Your task to perform on an android device: change timer sound Image 0: 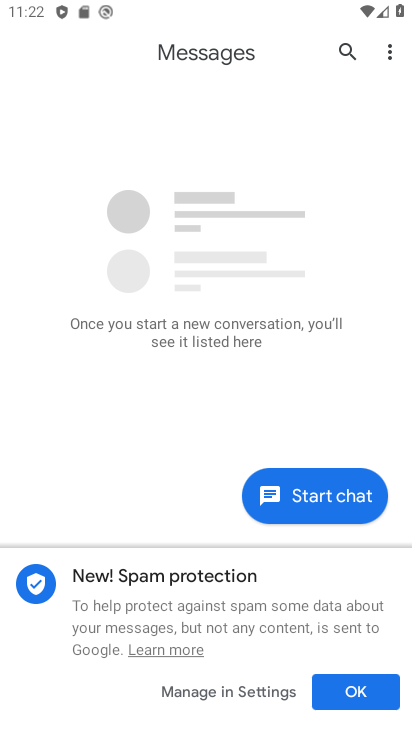
Step 0: press home button
Your task to perform on an android device: change timer sound Image 1: 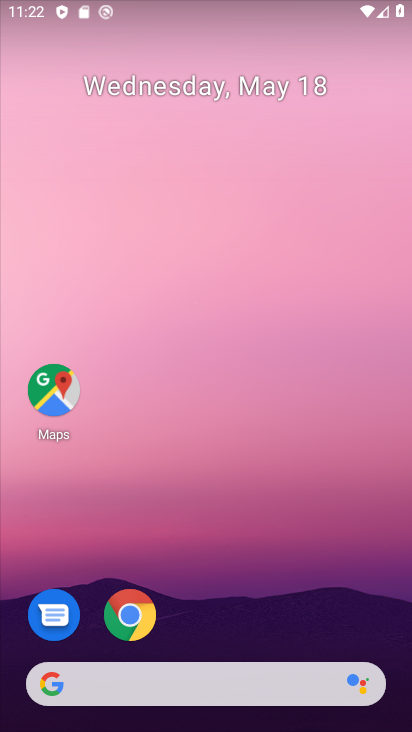
Step 1: drag from (41, 621) to (318, 145)
Your task to perform on an android device: change timer sound Image 2: 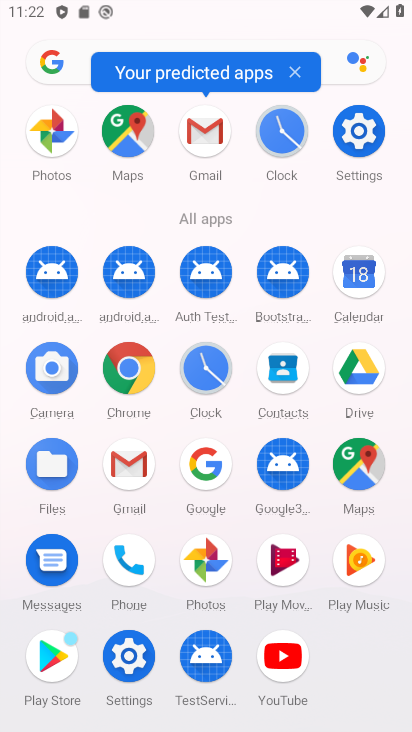
Step 2: click (357, 137)
Your task to perform on an android device: change timer sound Image 3: 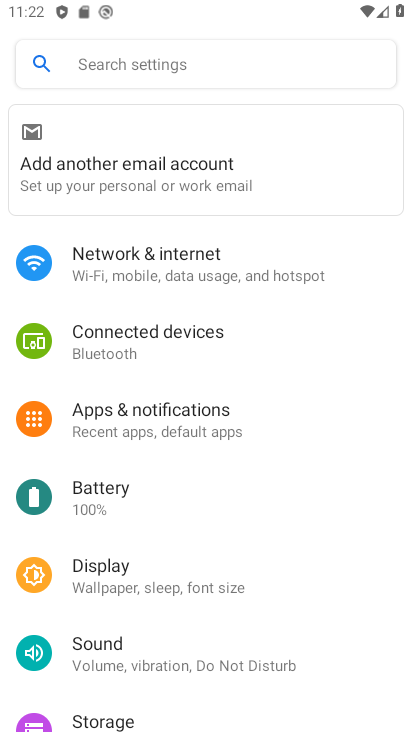
Step 3: drag from (56, 554) to (270, 234)
Your task to perform on an android device: change timer sound Image 4: 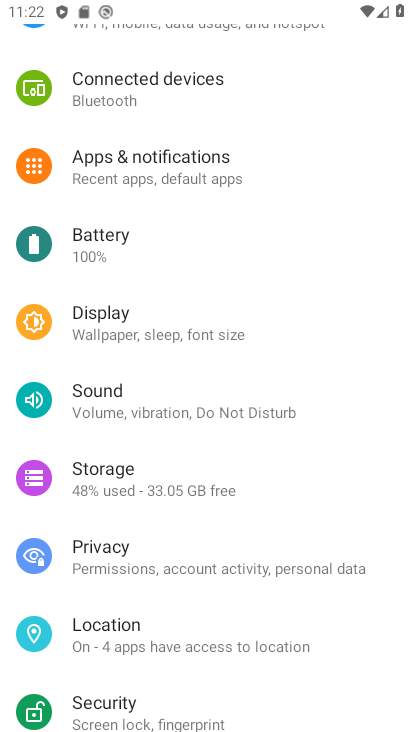
Step 4: drag from (35, 610) to (297, 127)
Your task to perform on an android device: change timer sound Image 5: 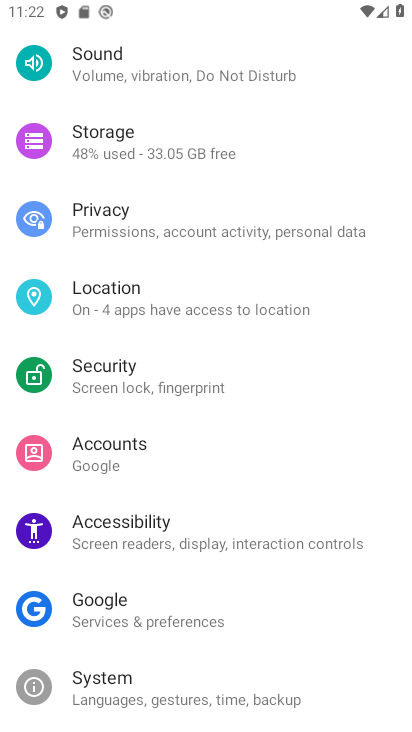
Step 5: drag from (10, 598) to (287, 91)
Your task to perform on an android device: change timer sound Image 6: 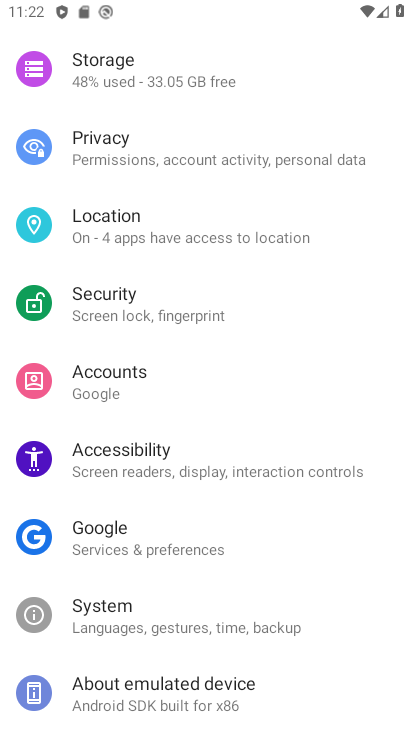
Step 6: drag from (294, 81) to (215, 552)
Your task to perform on an android device: change timer sound Image 7: 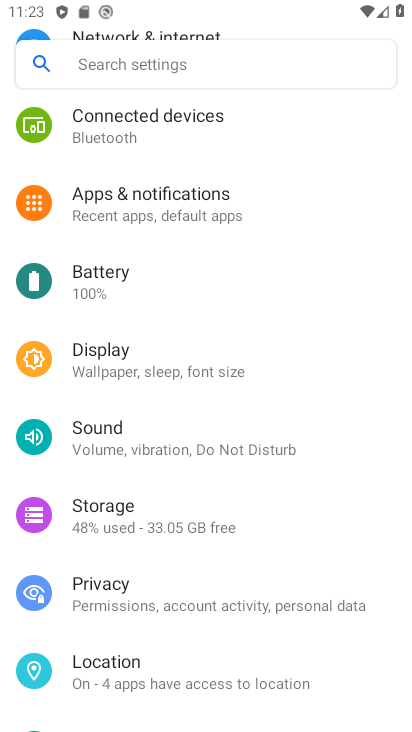
Step 7: press home button
Your task to perform on an android device: change timer sound Image 8: 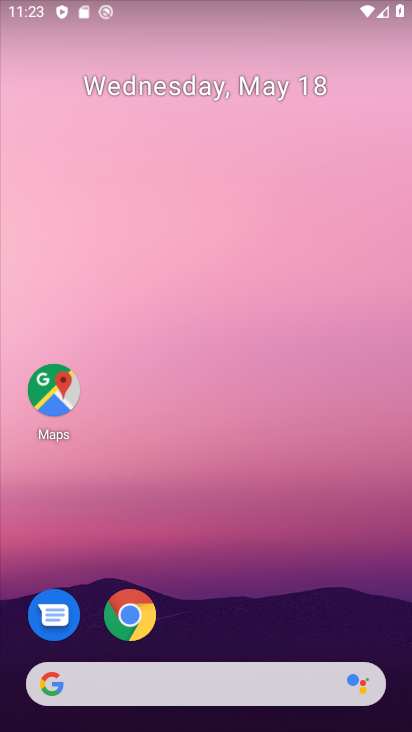
Step 8: drag from (64, 459) to (242, 145)
Your task to perform on an android device: change timer sound Image 9: 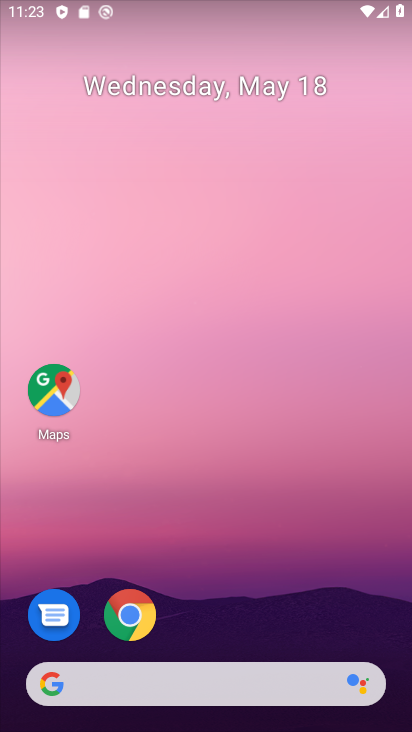
Step 9: drag from (108, 377) to (303, 116)
Your task to perform on an android device: change timer sound Image 10: 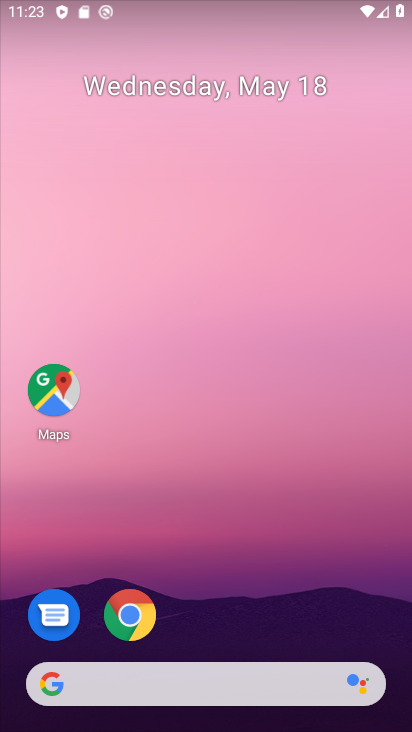
Step 10: drag from (107, 401) to (308, 17)
Your task to perform on an android device: change timer sound Image 11: 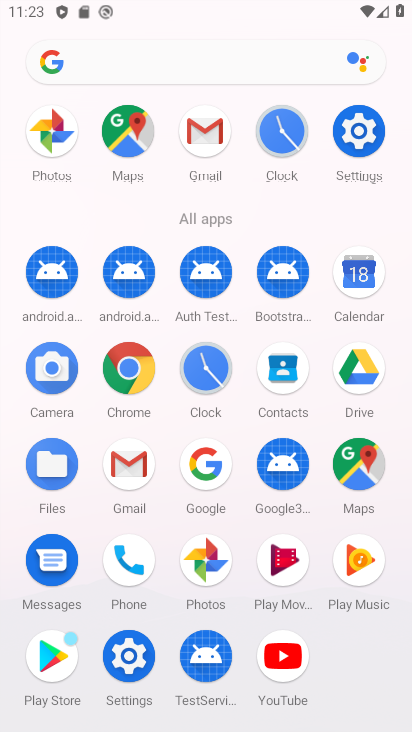
Step 11: click (207, 375)
Your task to perform on an android device: change timer sound Image 12: 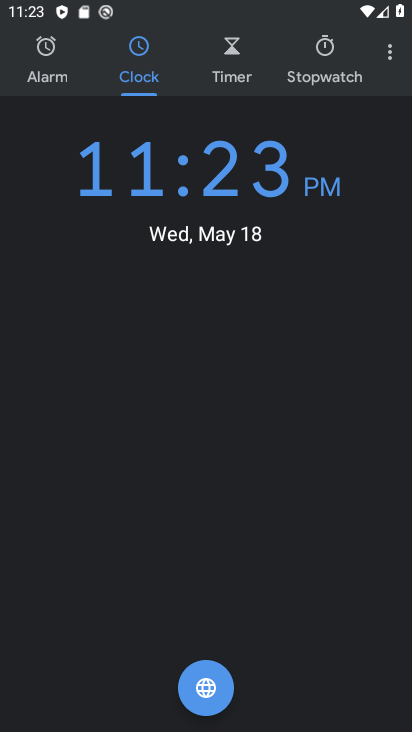
Step 12: click (396, 58)
Your task to perform on an android device: change timer sound Image 13: 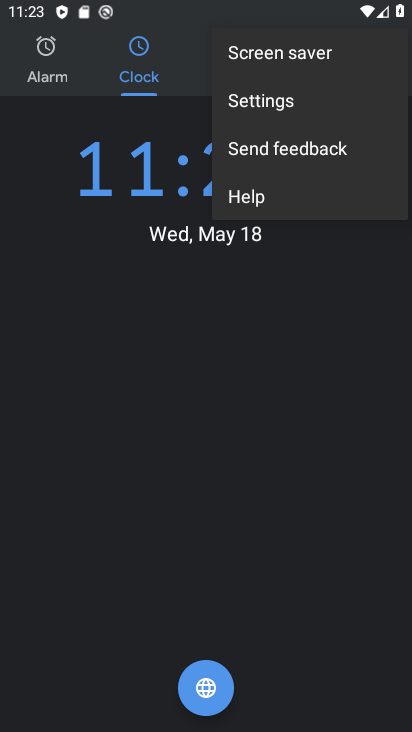
Step 13: click (321, 98)
Your task to perform on an android device: change timer sound Image 14: 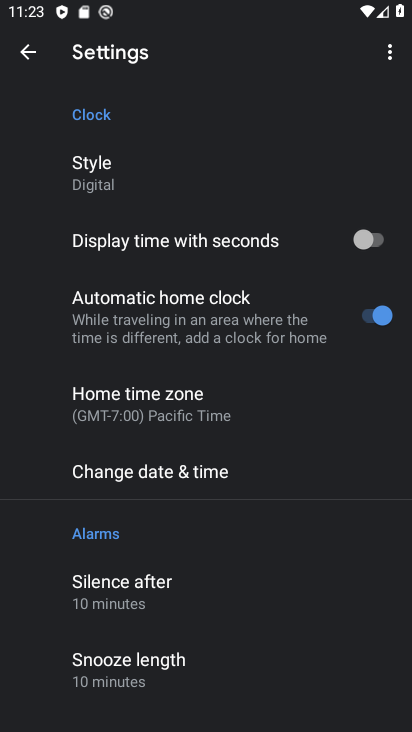
Step 14: drag from (1, 688) to (216, 211)
Your task to perform on an android device: change timer sound Image 15: 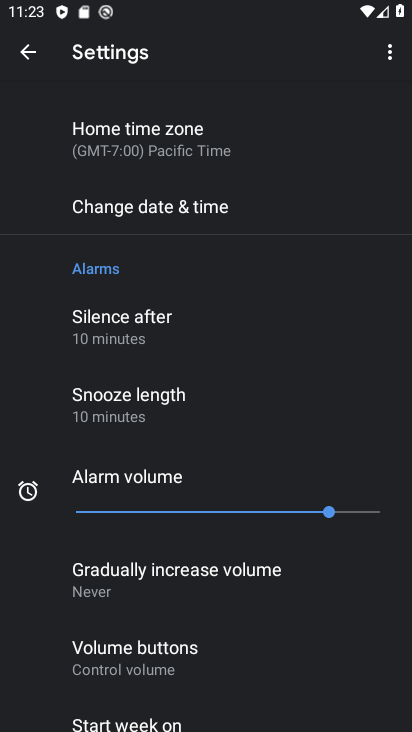
Step 15: drag from (23, 598) to (265, 174)
Your task to perform on an android device: change timer sound Image 16: 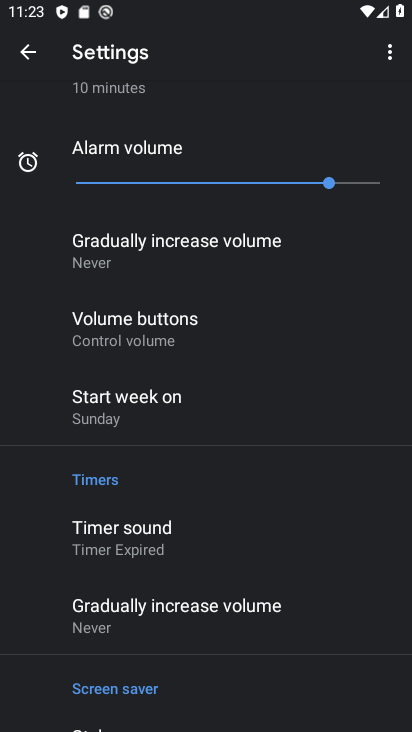
Step 16: click (148, 530)
Your task to perform on an android device: change timer sound Image 17: 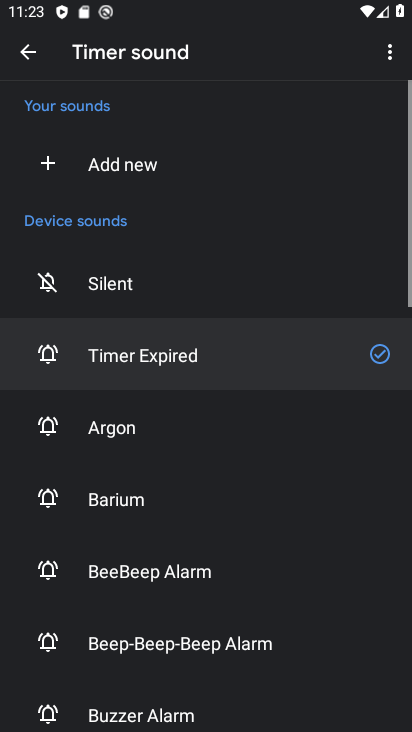
Step 17: click (90, 437)
Your task to perform on an android device: change timer sound Image 18: 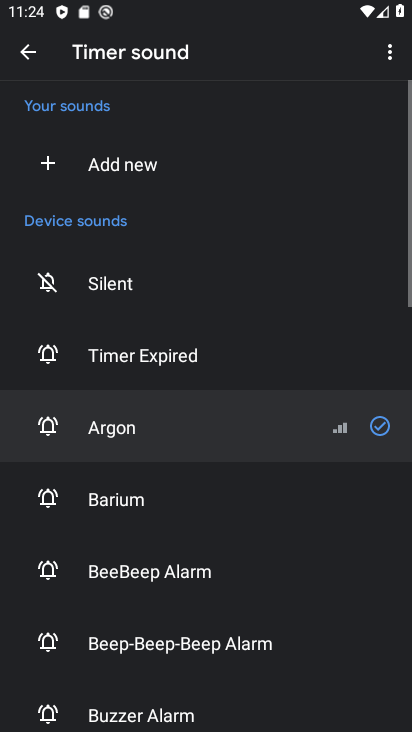
Step 18: task complete